Your task to perform on an android device: check data usage Image 0: 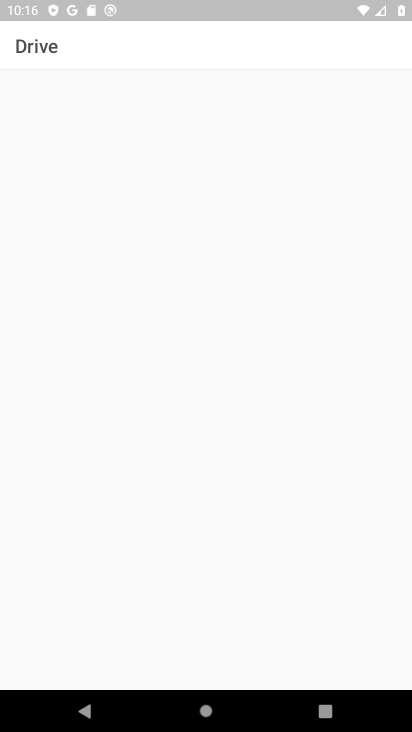
Step 0: click (228, 638)
Your task to perform on an android device: check data usage Image 1: 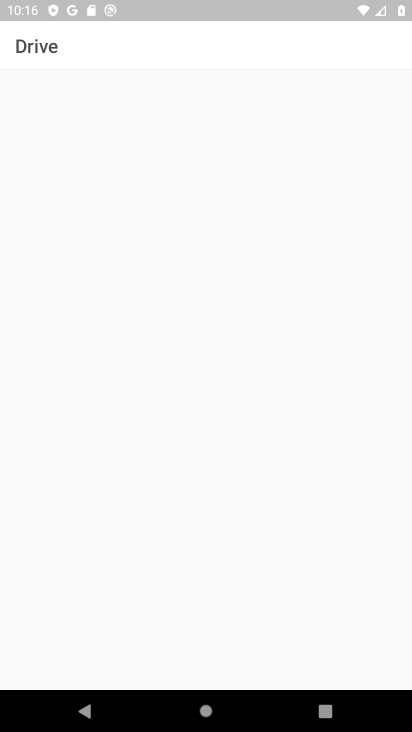
Step 1: press back button
Your task to perform on an android device: check data usage Image 2: 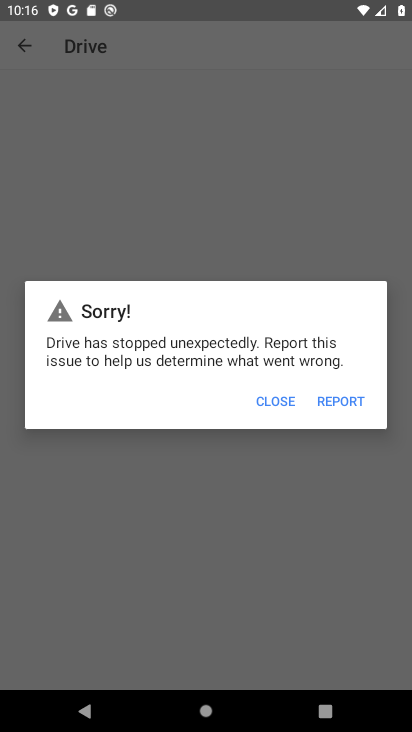
Step 2: press back button
Your task to perform on an android device: check data usage Image 3: 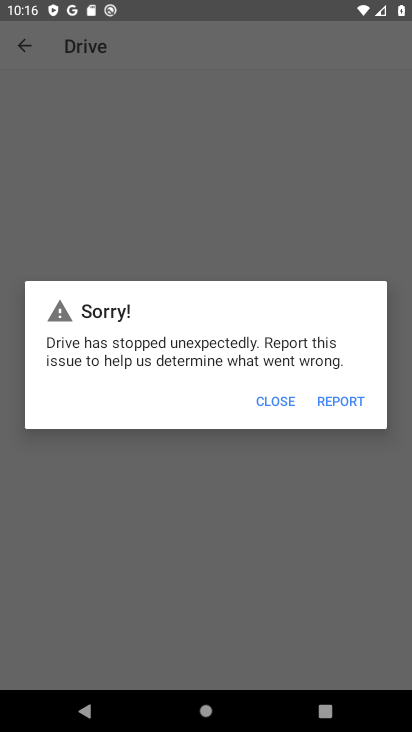
Step 3: press home button
Your task to perform on an android device: check data usage Image 4: 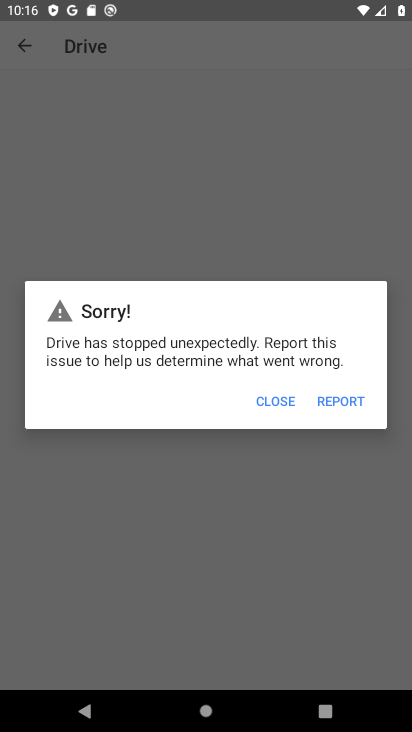
Step 4: press back button
Your task to perform on an android device: check data usage Image 5: 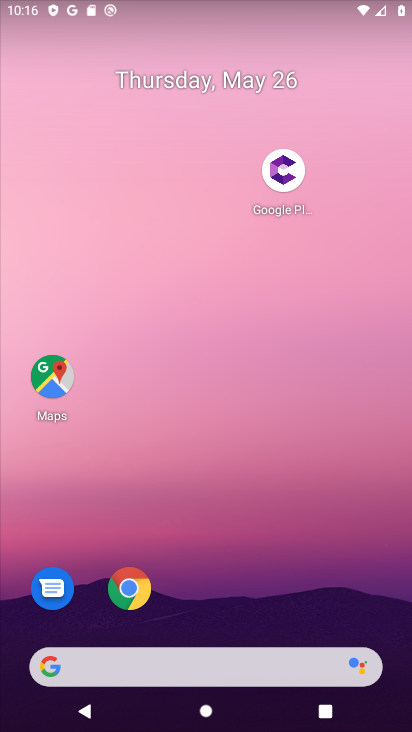
Step 5: click (331, 384)
Your task to perform on an android device: check data usage Image 6: 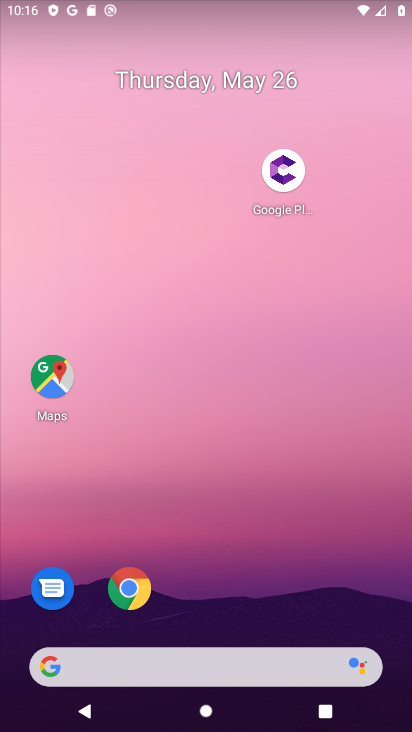
Step 6: drag from (273, 695) to (178, 150)
Your task to perform on an android device: check data usage Image 7: 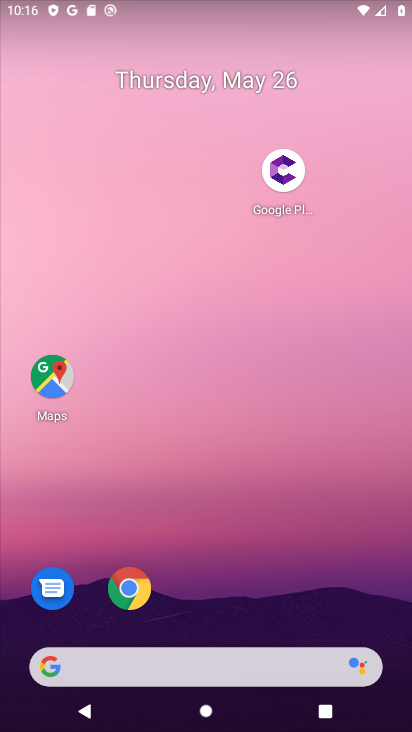
Step 7: drag from (191, 560) to (139, 101)
Your task to perform on an android device: check data usage Image 8: 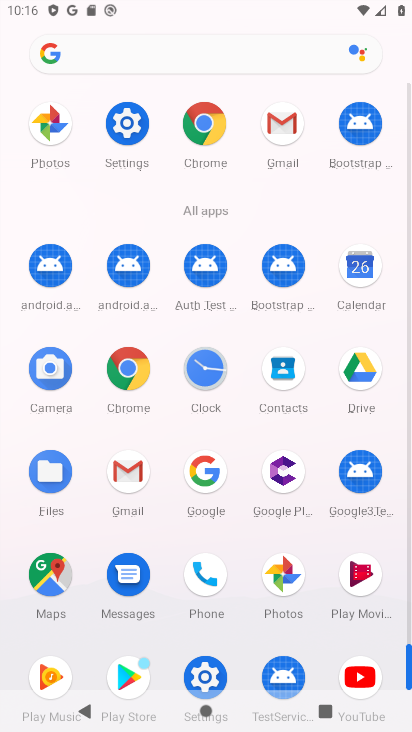
Step 8: drag from (232, 612) to (131, 10)
Your task to perform on an android device: check data usage Image 9: 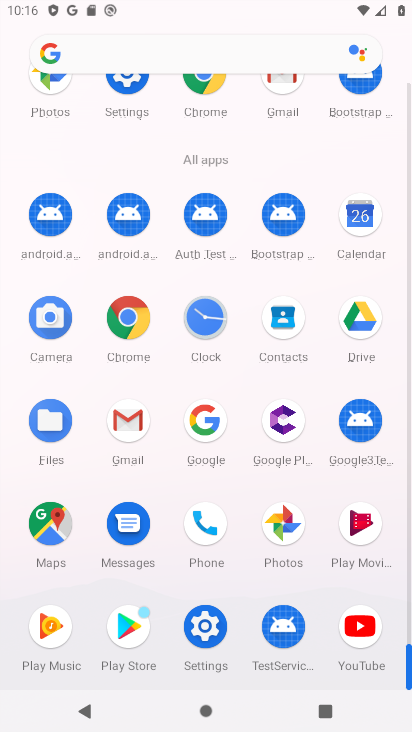
Step 9: click (120, 74)
Your task to perform on an android device: check data usage Image 10: 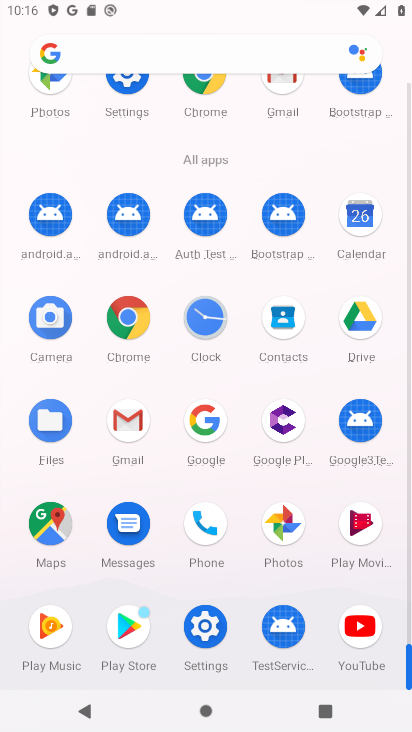
Step 10: click (121, 73)
Your task to perform on an android device: check data usage Image 11: 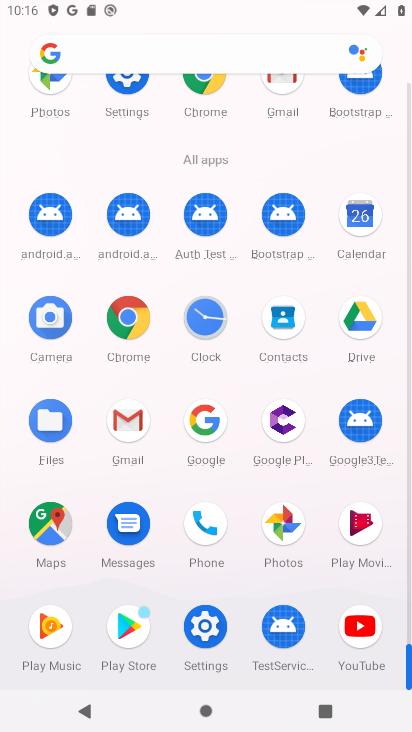
Step 11: click (121, 73)
Your task to perform on an android device: check data usage Image 12: 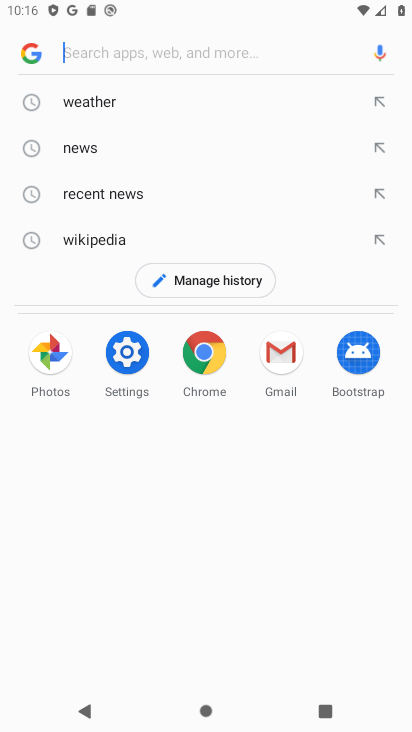
Step 12: click (145, 349)
Your task to perform on an android device: check data usage Image 13: 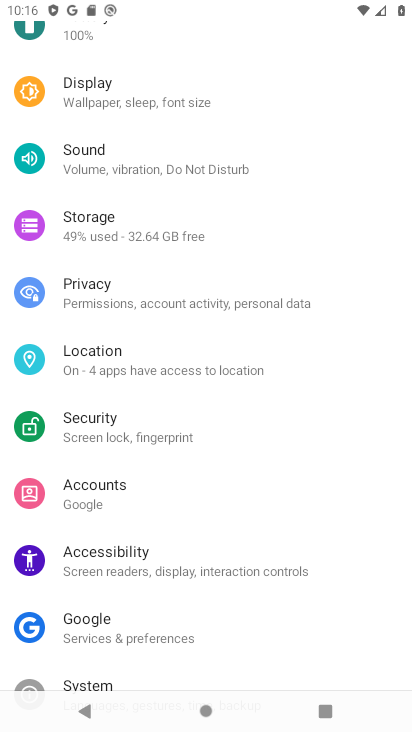
Step 13: click (127, 355)
Your task to perform on an android device: check data usage Image 14: 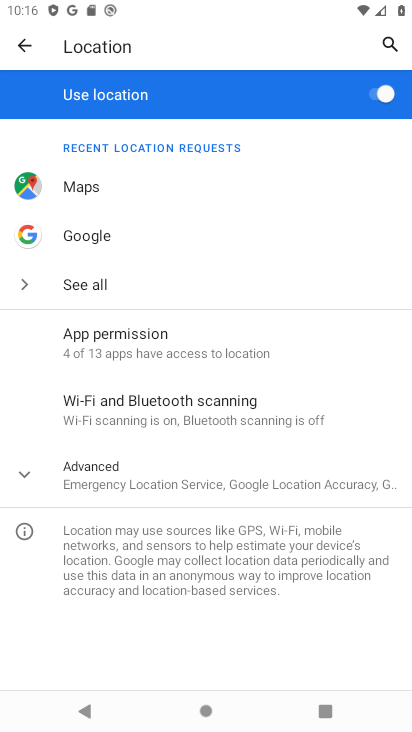
Step 14: click (3, 46)
Your task to perform on an android device: check data usage Image 15: 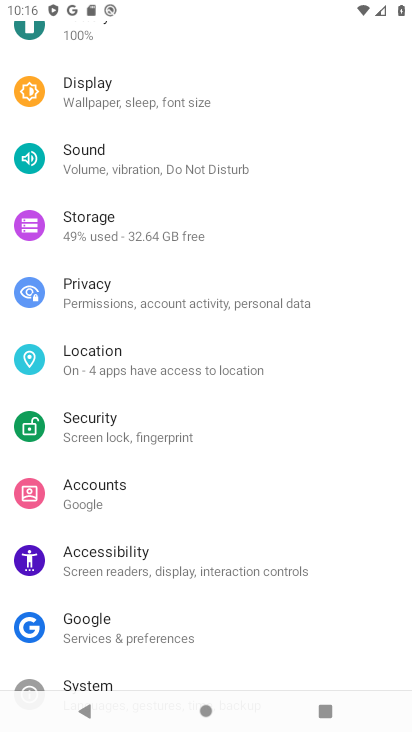
Step 15: click (25, 43)
Your task to perform on an android device: check data usage Image 16: 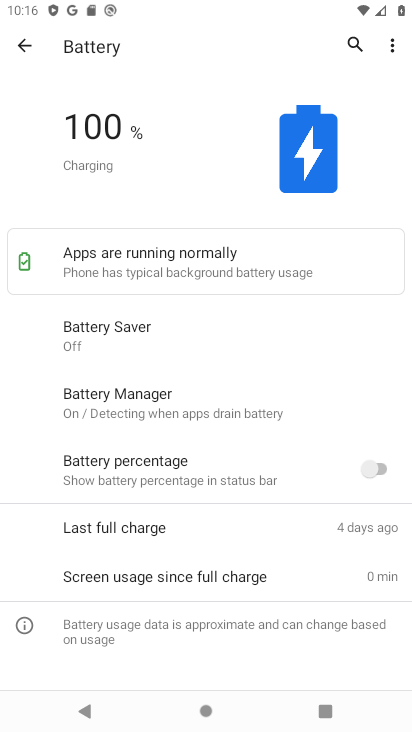
Step 16: click (23, 44)
Your task to perform on an android device: check data usage Image 17: 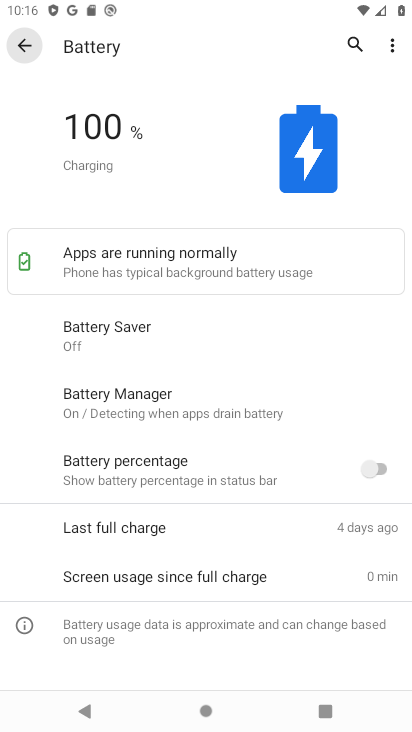
Step 17: click (23, 44)
Your task to perform on an android device: check data usage Image 18: 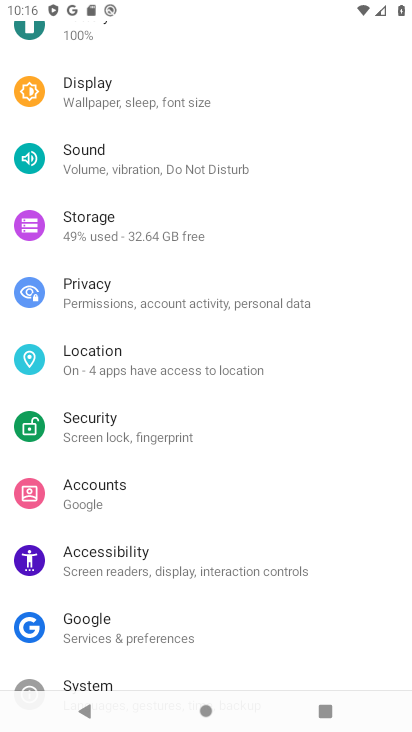
Step 18: drag from (109, 97) to (143, 613)
Your task to perform on an android device: check data usage Image 19: 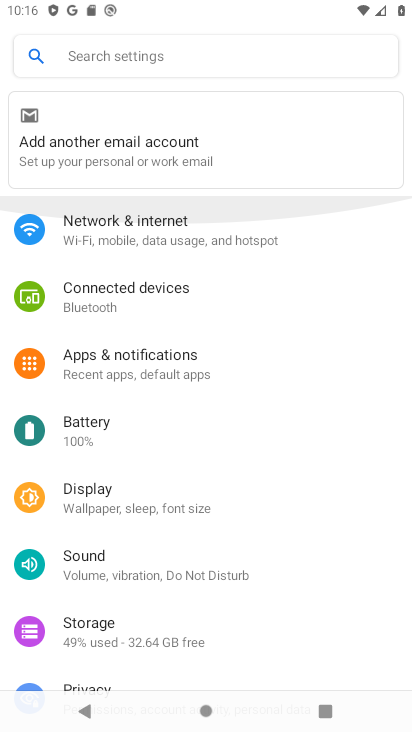
Step 19: drag from (122, 168) to (182, 621)
Your task to perform on an android device: check data usage Image 20: 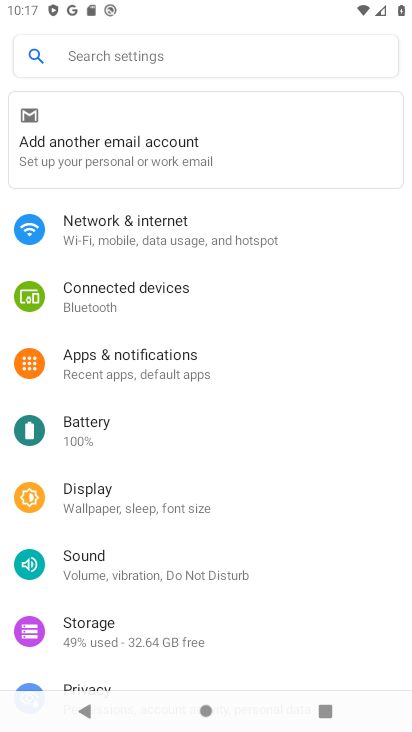
Step 20: click (165, 199)
Your task to perform on an android device: check data usage Image 21: 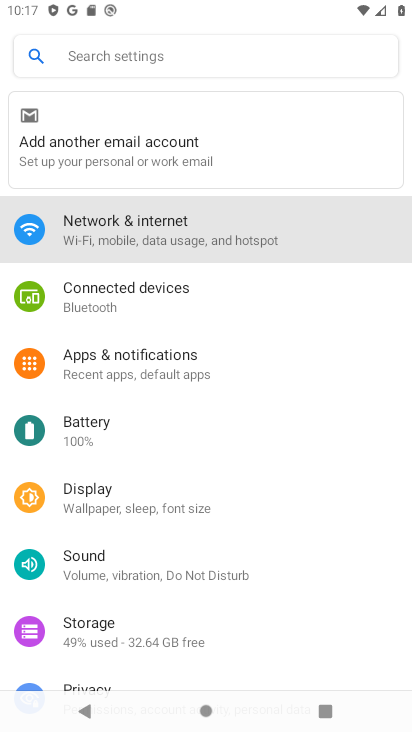
Step 21: click (165, 195)
Your task to perform on an android device: check data usage Image 22: 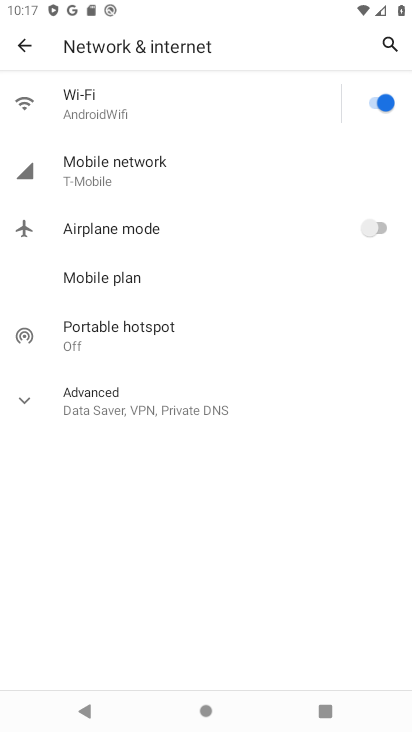
Step 22: click (31, 42)
Your task to perform on an android device: check data usage Image 23: 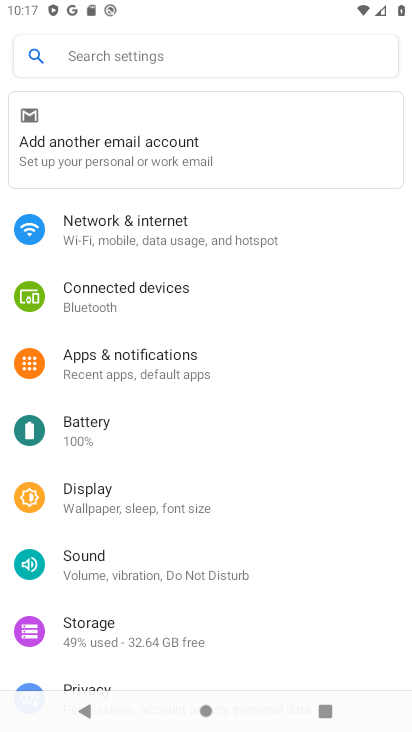
Step 23: click (135, 229)
Your task to perform on an android device: check data usage Image 24: 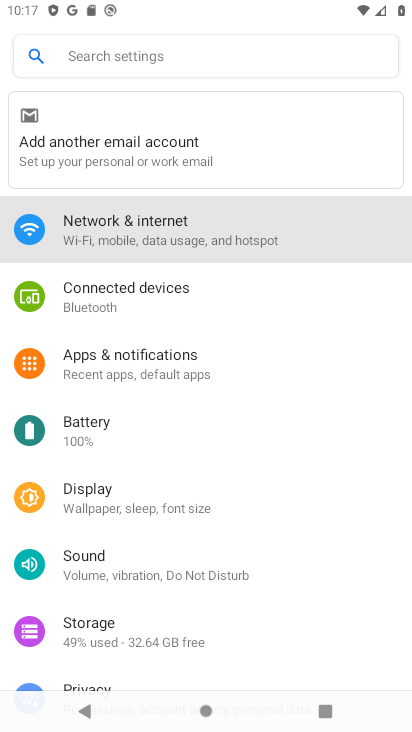
Step 24: click (138, 227)
Your task to perform on an android device: check data usage Image 25: 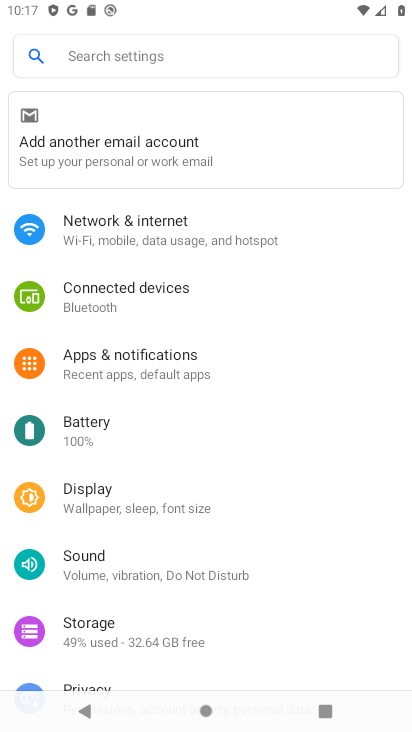
Step 25: click (138, 227)
Your task to perform on an android device: check data usage Image 26: 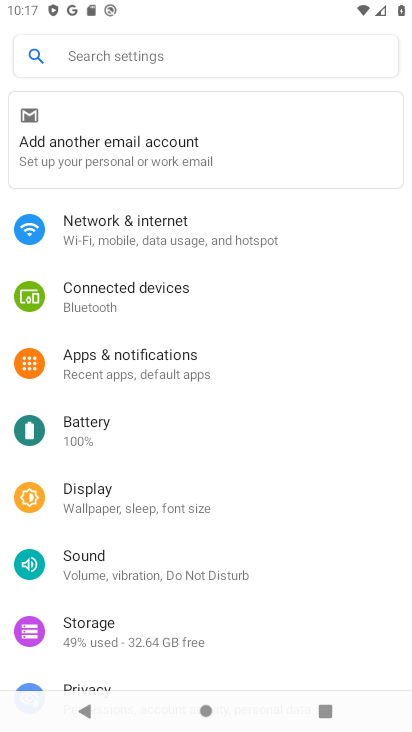
Step 26: click (138, 227)
Your task to perform on an android device: check data usage Image 27: 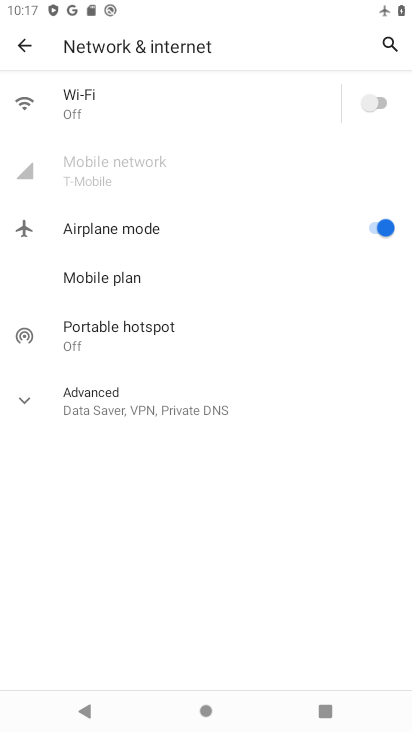
Step 27: click (29, 43)
Your task to perform on an android device: check data usage Image 28: 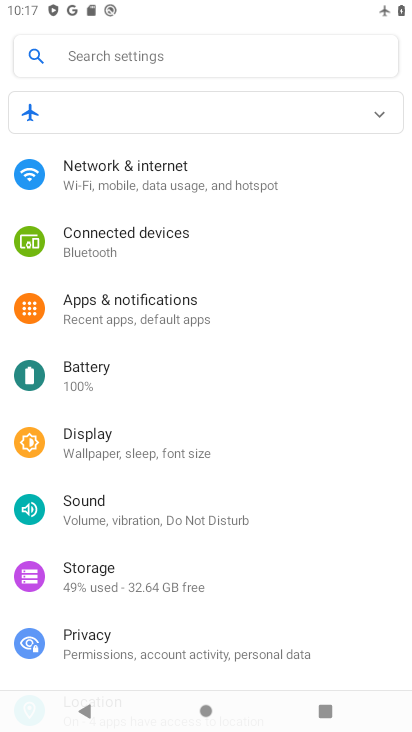
Step 28: click (148, 181)
Your task to perform on an android device: check data usage Image 29: 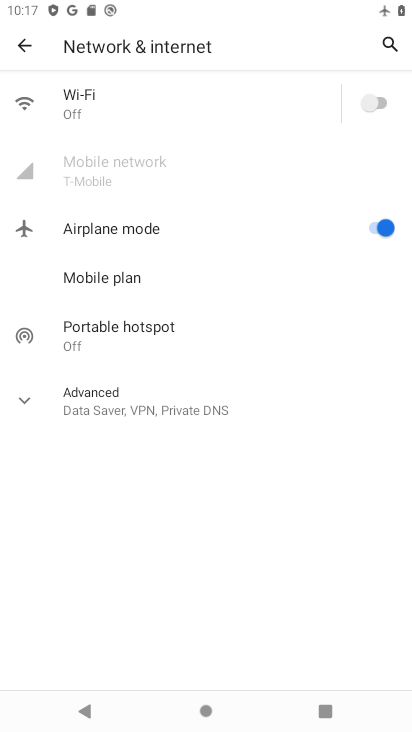
Step 29: click (391, 225)
Your task to perform on an android device: check data usage Image 30: 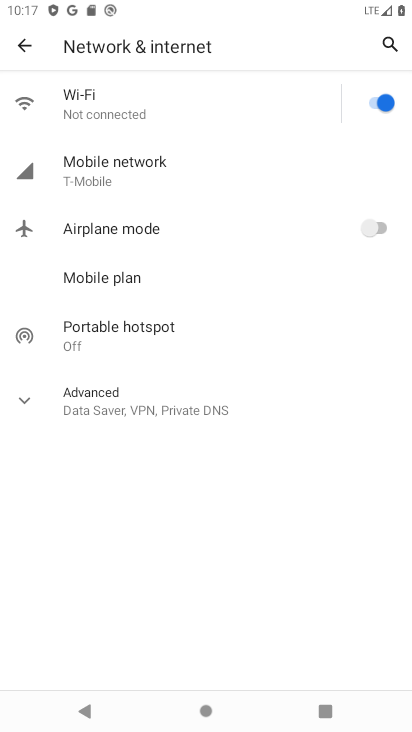
Step 30: click (87, 176)
Your task to perform on an android device: check data usage Image 31: 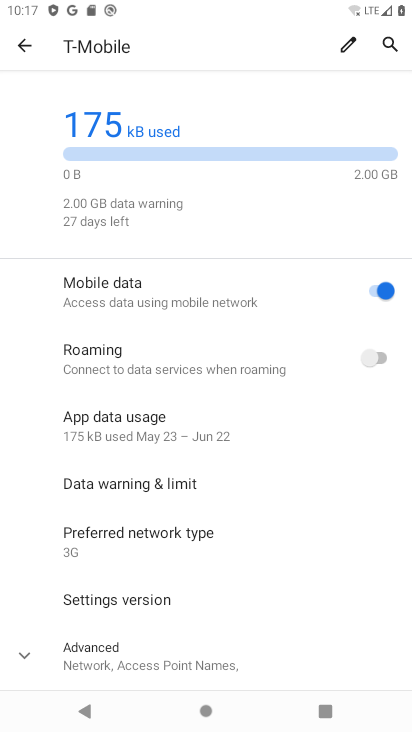
Step 31: task complete